Your task to perform on an android device: Go to location settings Image 0: 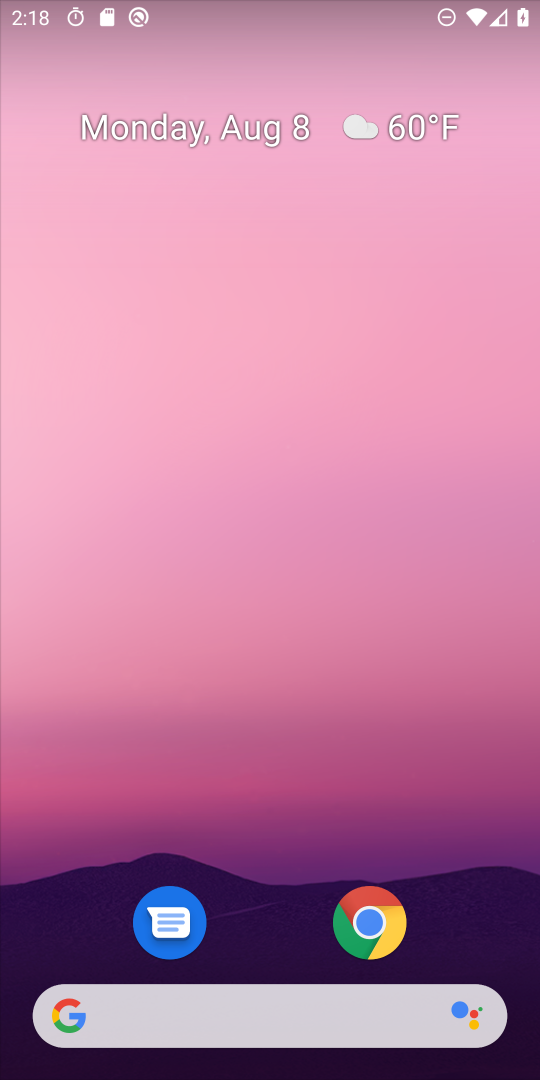
Step 0: drag from (281, 642) to (130, 0)
Your task to perform on an android device: Go to location settings Image 1: 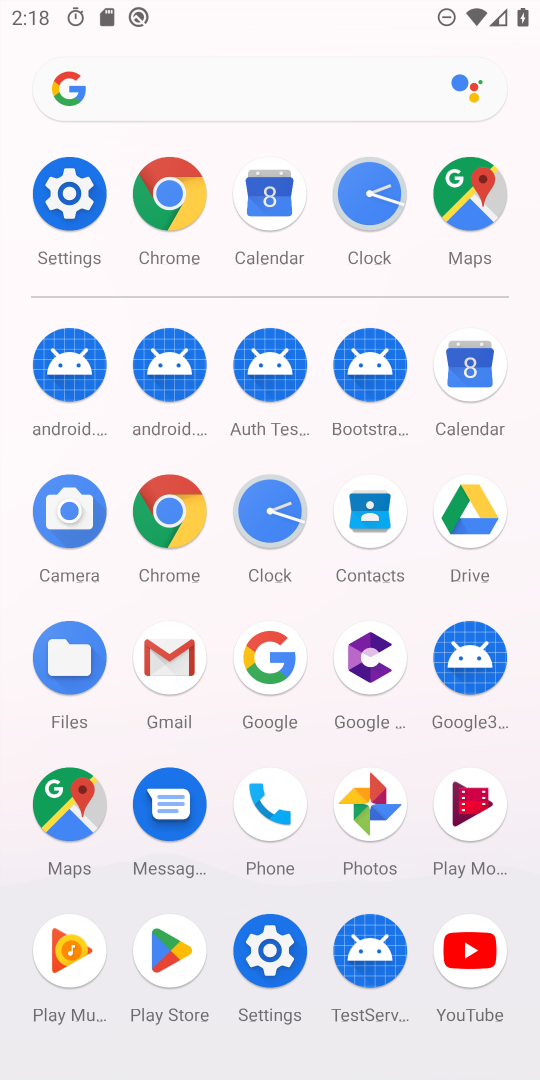
Step 1: click (57, 189)
Your task to perform on an android device: Go to location settings Image 2: 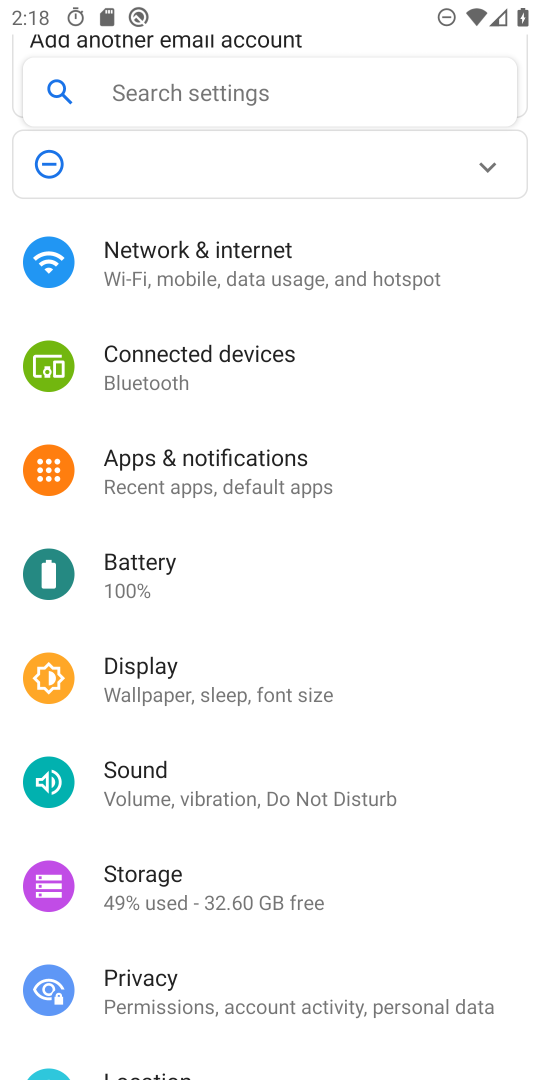
Step 2: drag from (253, 965) to (365, 290)
Your task to perform on an android device: Go to location settings Image 3: 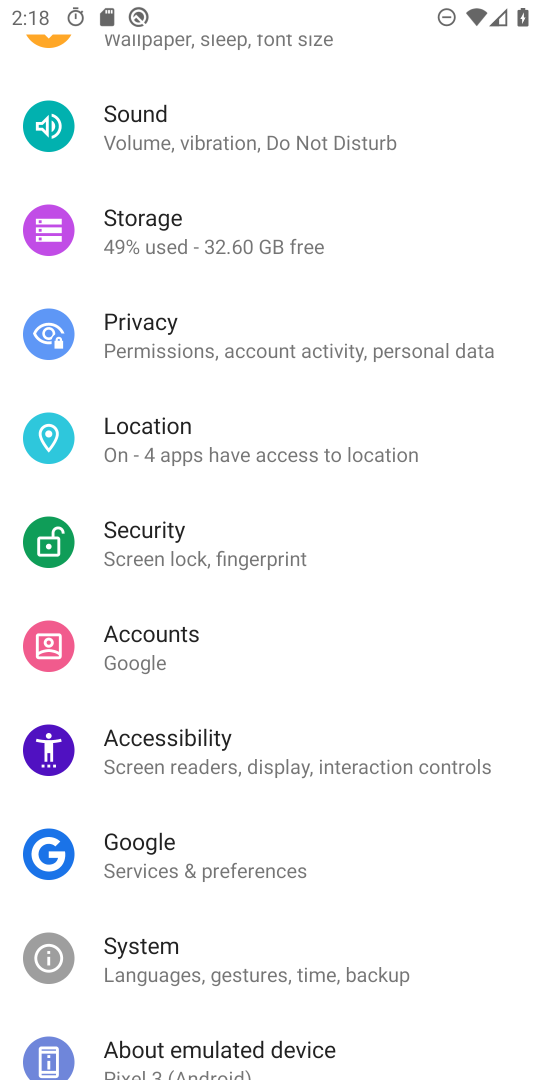
Step 3: click (162, 434)
Your task to perform on an android device: Go to location settings Image 4: 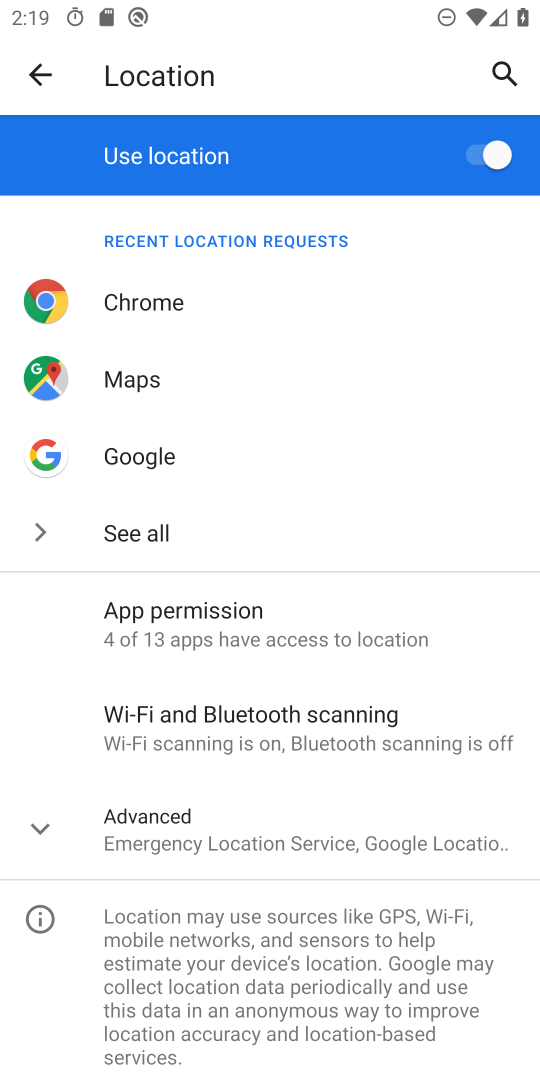
Step 4: click (195, 827)
Your task to perform on an android device: Go to location settings Image 5: 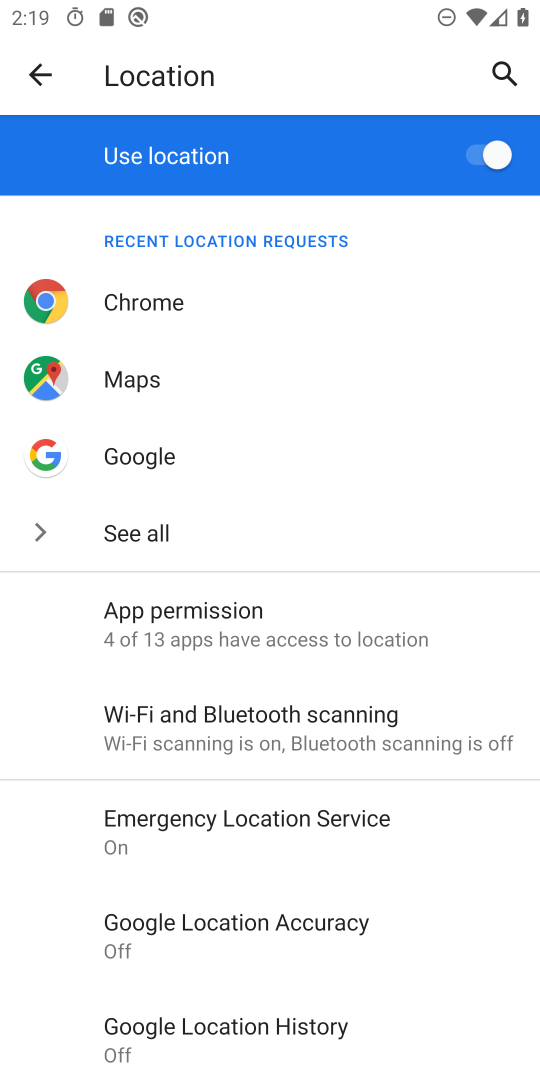
Step 5: task complete